Your task to perform on an android device: turn on showing notifications on the lock screen Image 0: 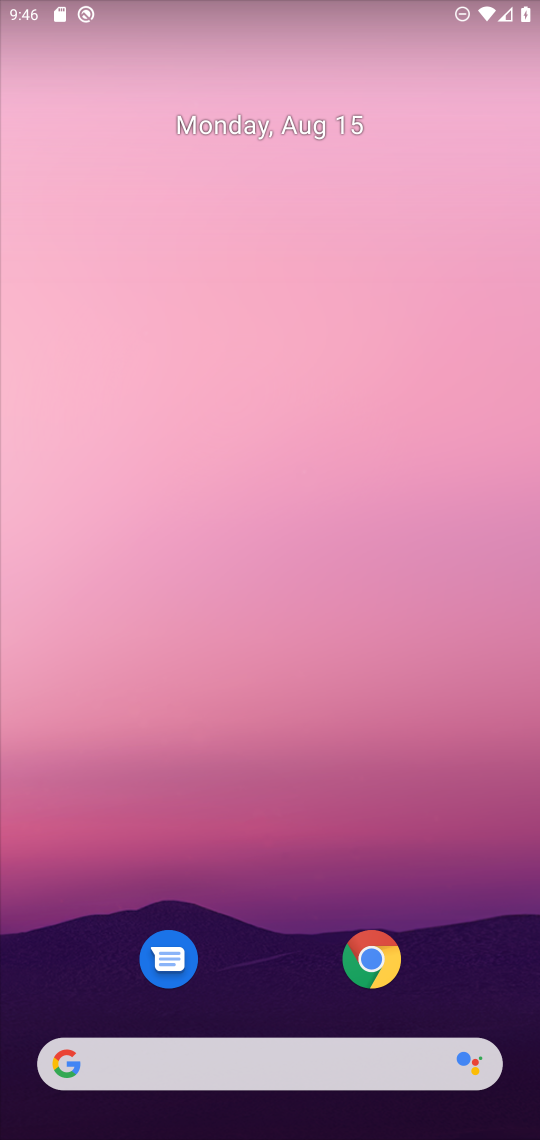
Step 0: drag from (309, 1033) to (263, 116)
Your task to perform on an android device: turn on showing notifications on the lock screen Image 1: 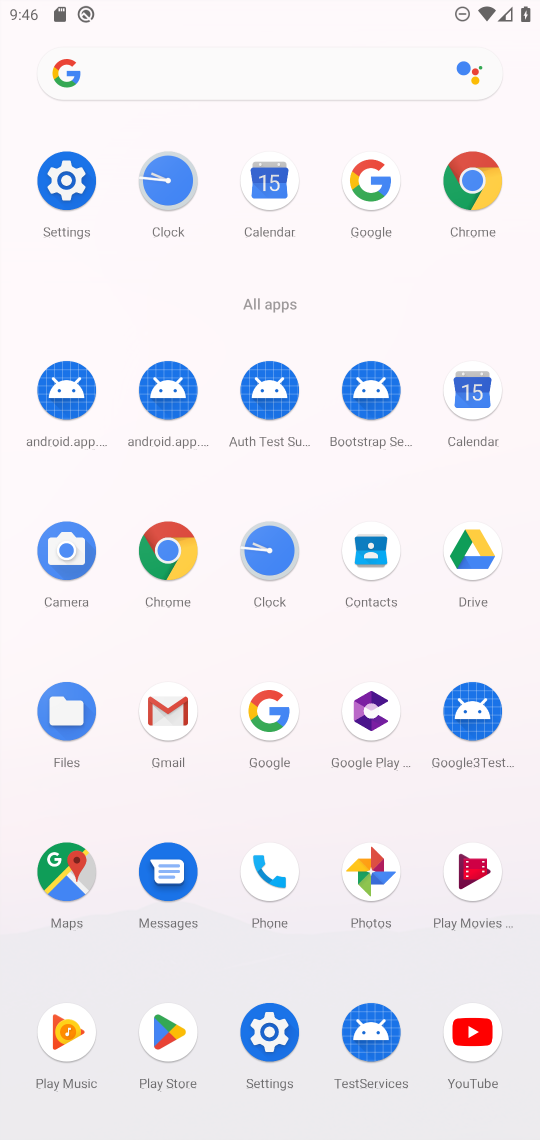
Step 1: click (266, 1021)
Your task to perform on an android device: turn on showing notifications on the lock screen Image 2: 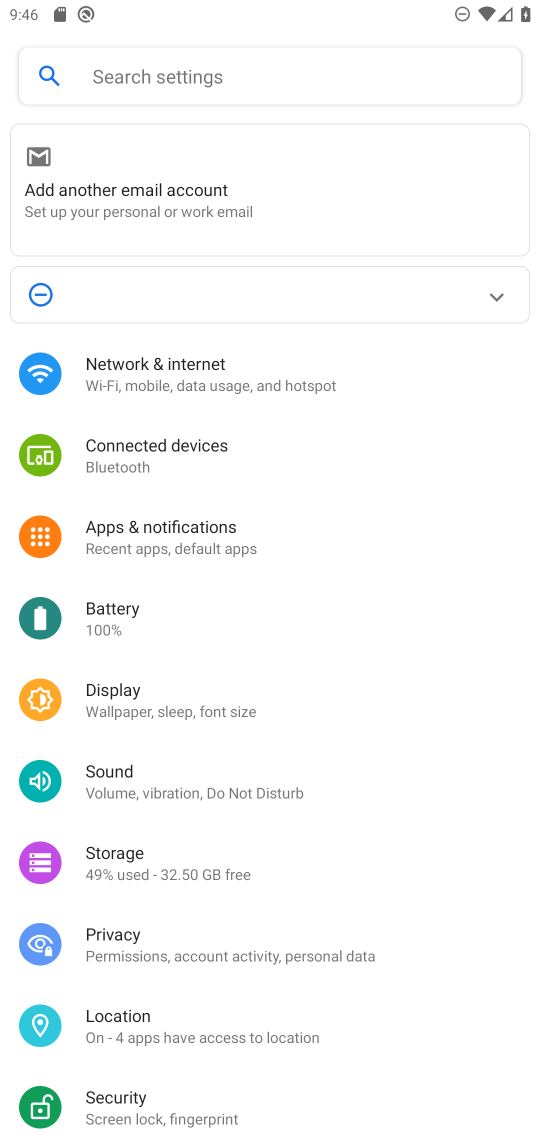
Step 2: click (136, 549)
Your task to perform on an android device: turn on showing notifications on the lock screen Image 3: 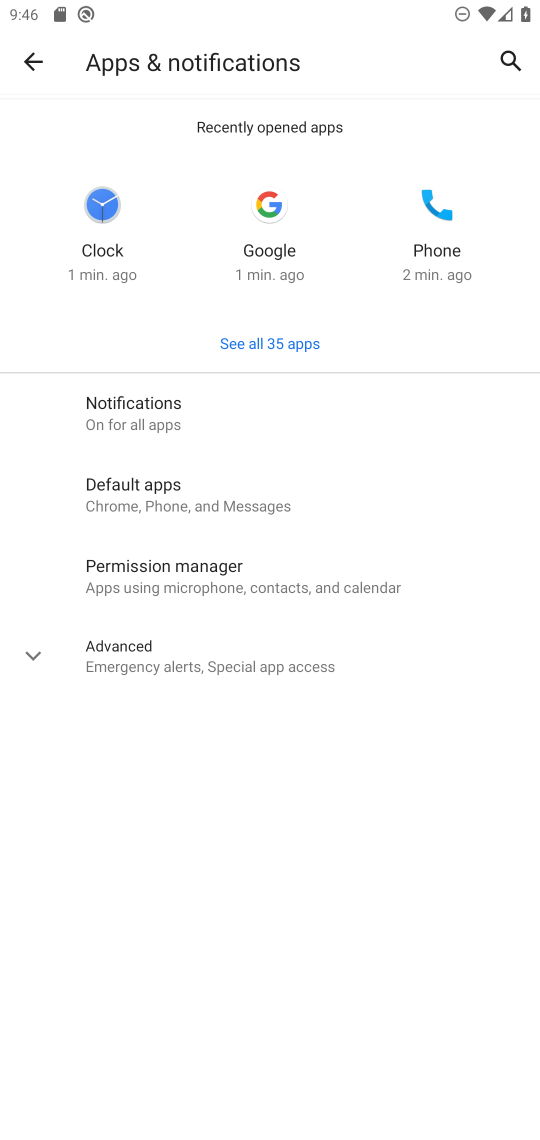
Step 3: click (146, 410)
Your task to perform on an android device: turn on showing notifications on the lock screen Image 4: 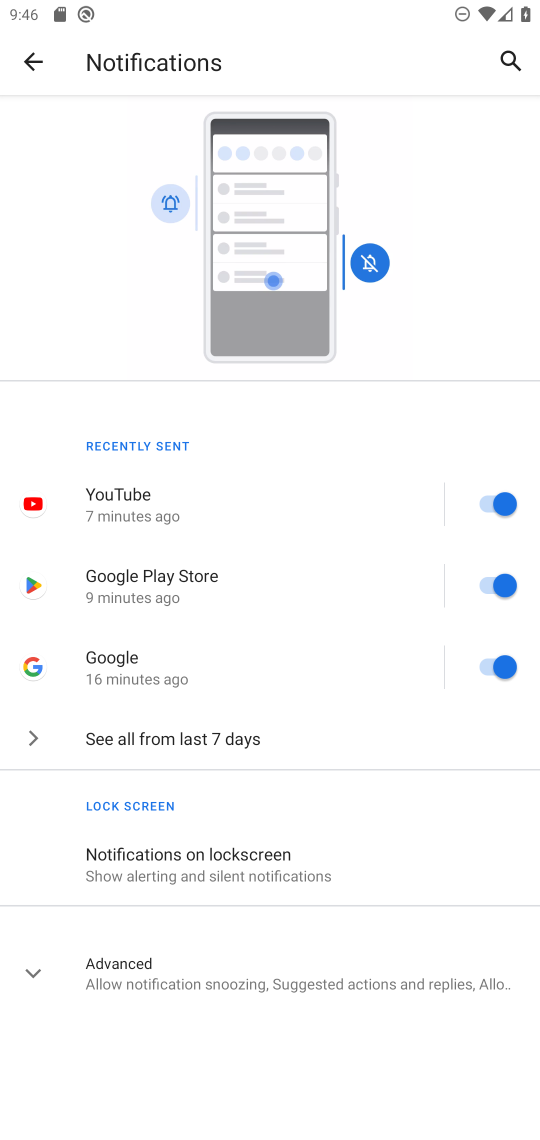
Step 4: click (151, 854)
Your task to perform on an android device: turn on showing notifications on the lock screen Image 5: 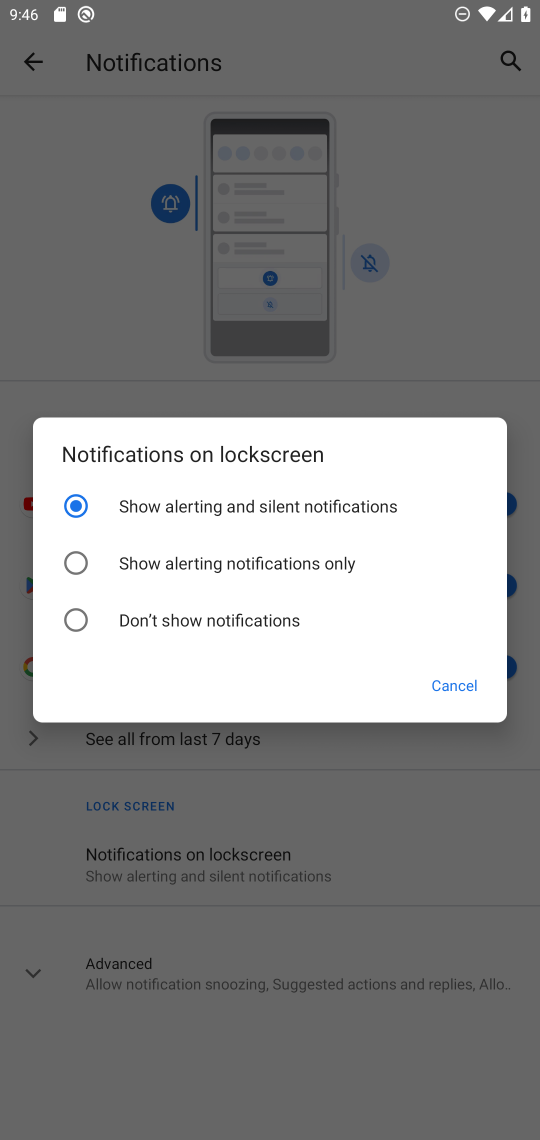
Step 5: click (168, 490)
Your task to perform on an android device: turn on showing notifications on the lock screen Image 6: 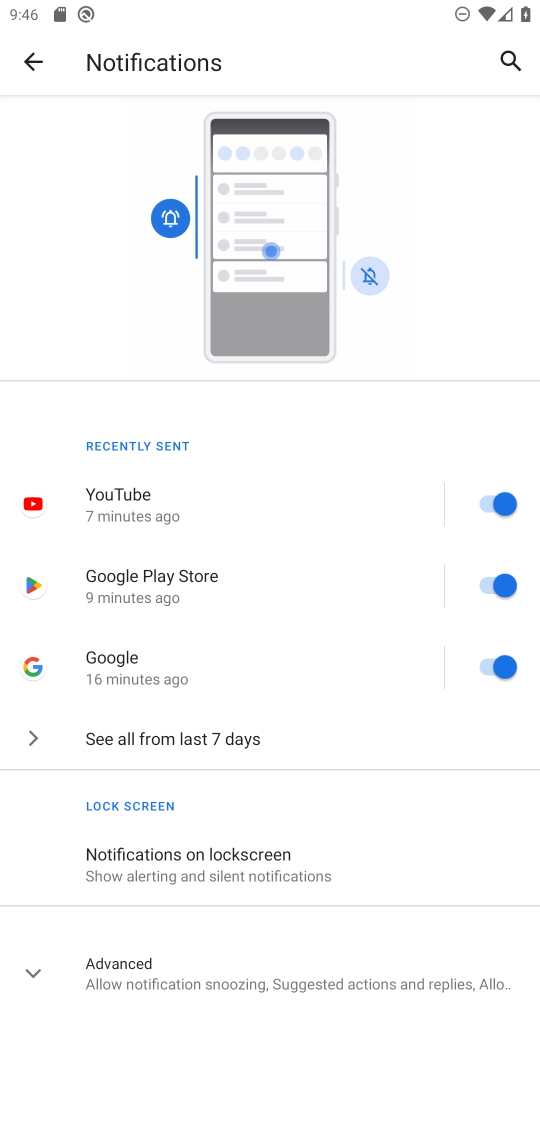
Step 6: task complete